Your task to perform on an android device: check storage Image 0: 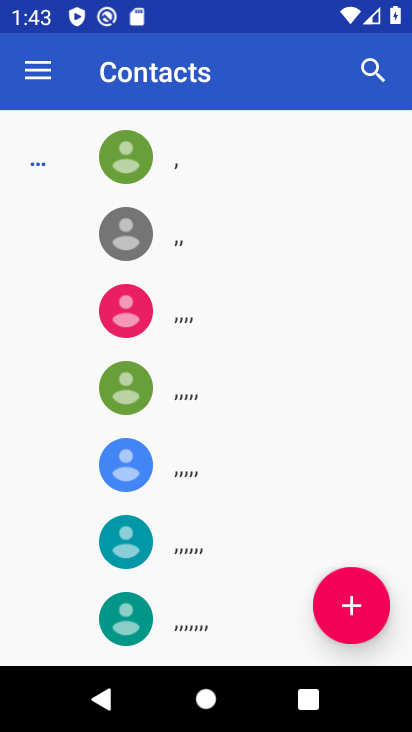
Step 0: press home button
Your task to perform on an android device: check storage Image 1: 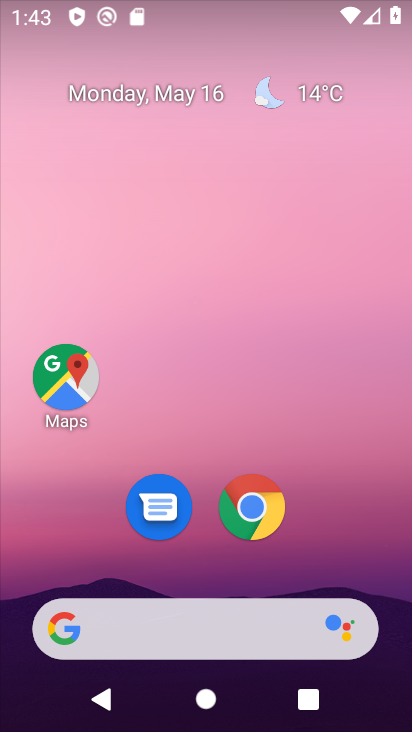
Step 1: drag from (211, 547) to (228, 215)
Your task to perform on an android device: check storage Image 2: 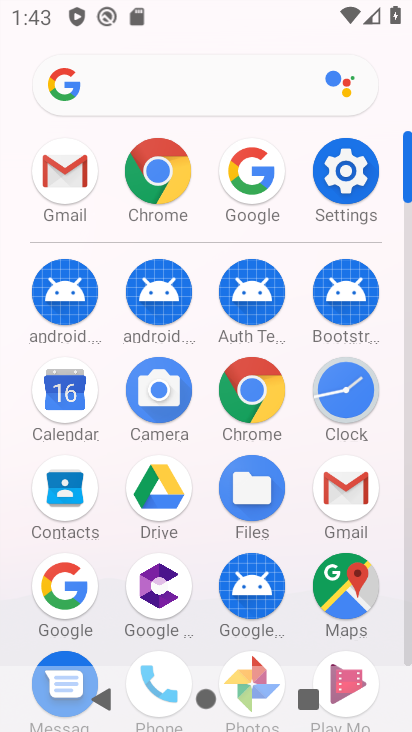
Step 2: click (349, 175)
Your task to perform on an android device: check storage Image 3: 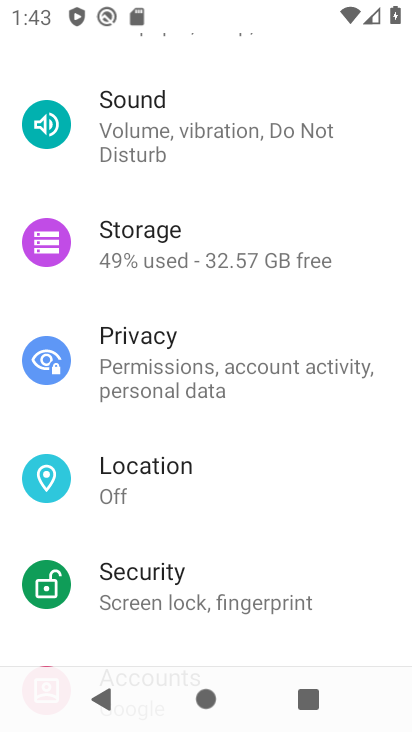
Step 3: click (242, 258)
Your task to perform on an android device: check storage Image 4: 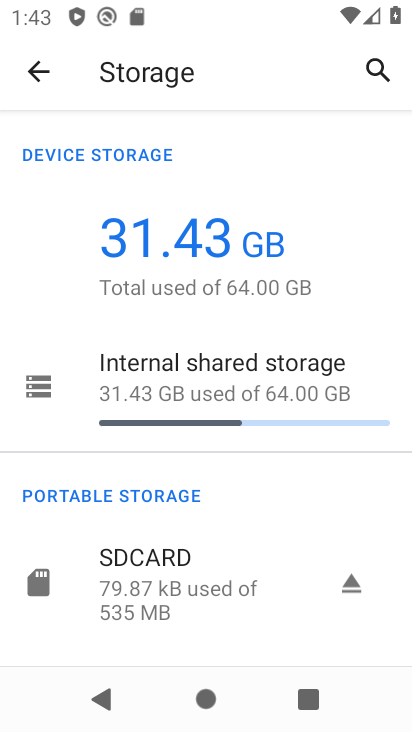
Step 4: click (308, 401)
Your task to perform on an android device: check storage Image 5: 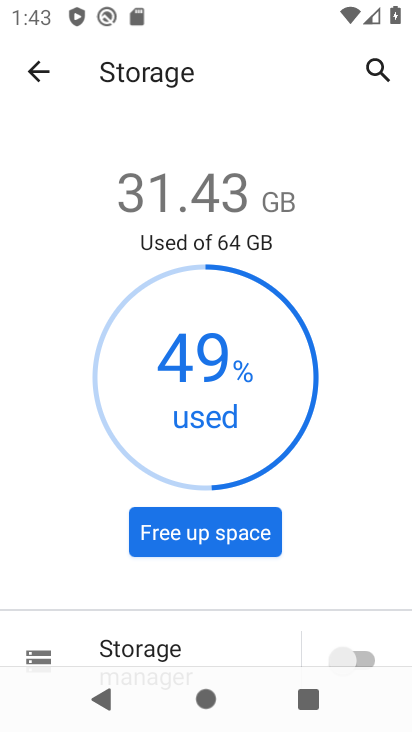
Step 5: task complete